Your task to perform on an android device: Open the Play Movies app and select the watchlist tab. Image 0: 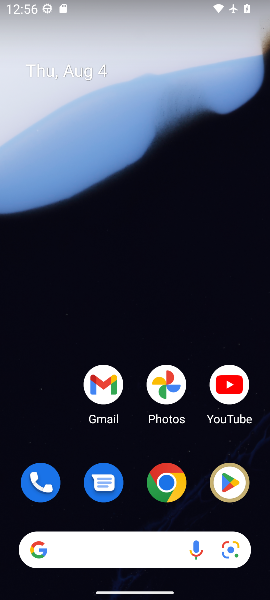
Step 0: drag from (139, 450) to (141, 141)
Your task to perform on an android device: Open the Play Movies app and select the watchlist tab. Image 1: 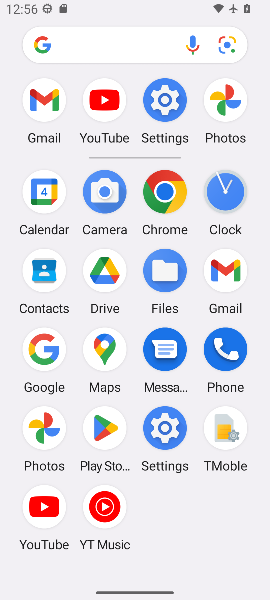
Step 1: task complete